Your task to perform on an android device: all mails in gmail Image 0: 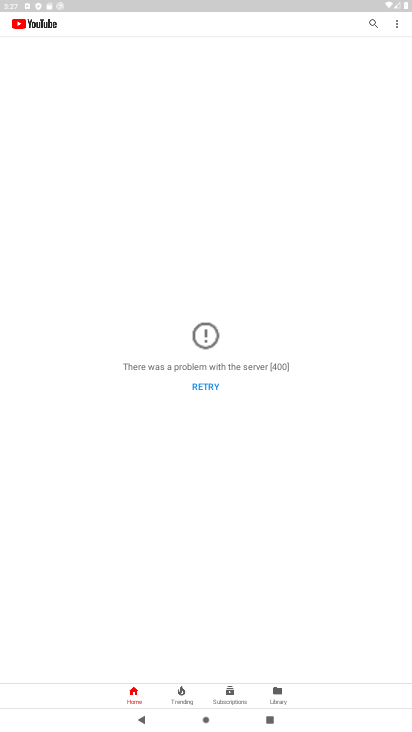
Step 0: press home button
Your task to perform on an android device: all mails in gmail Image 1: 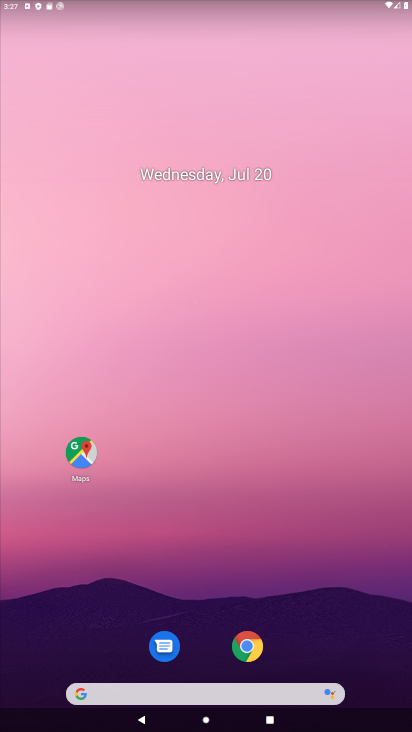
Step 1: drag from (214, 581) to (180, 129)
Your task to perform on an android device: all mails in gmail Image 2: 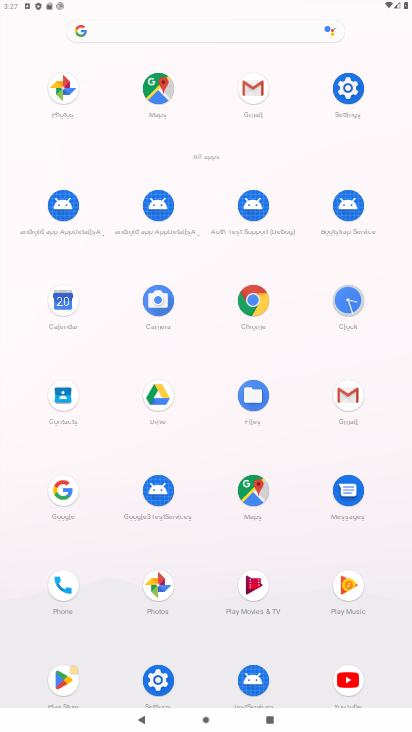
Step 2: click (264, 91)
Your task to perform on an android device: all mails in gmail Image 3: 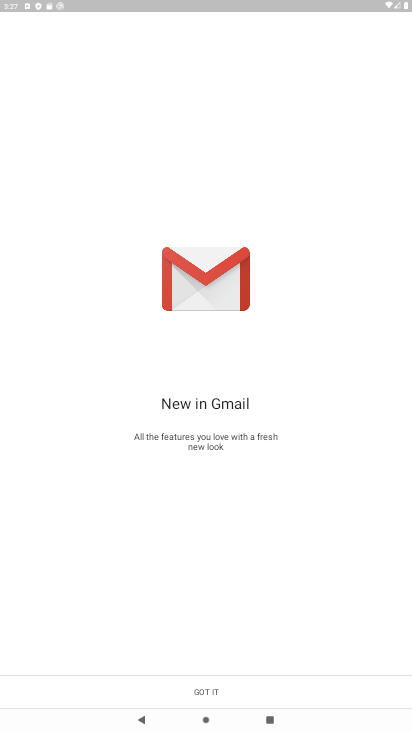
Step 3: click (231, 684)
Your task to perform on an android device: all mails in gmail Image 4: 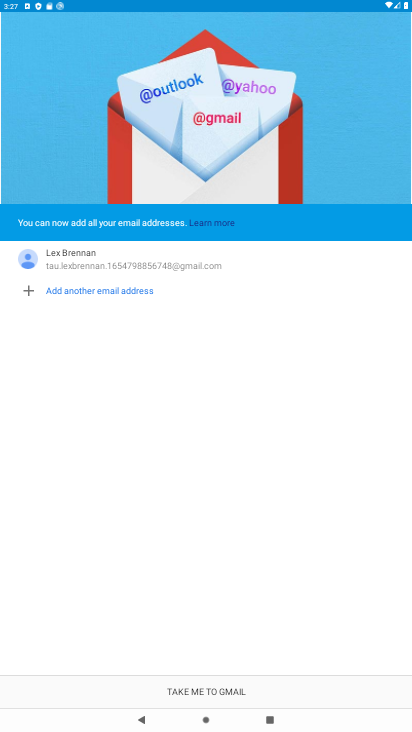
Step 4: click (232, 684)
Your task to perform on an android device: all mails in gmail Image 5: 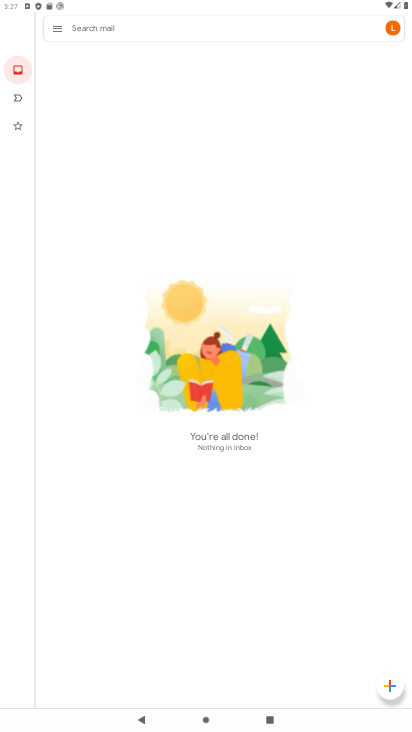
Step 5: click (47, 22)
Your task to perform on an android device: all mails in gmail Image 6: 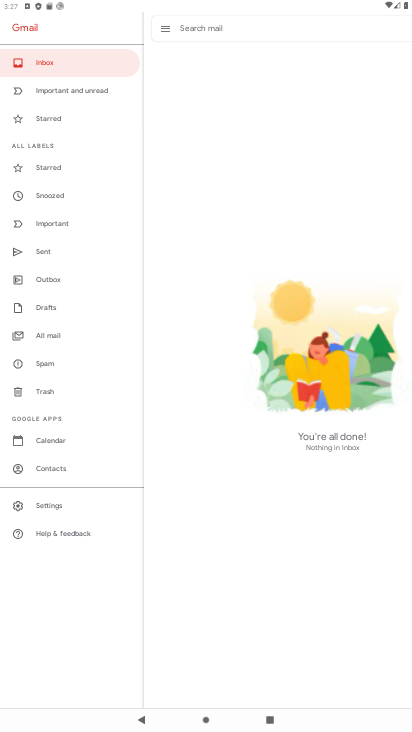
Step 6: click (49, 338)
Your task to perform on an android device: all mails in gmail Image 7: 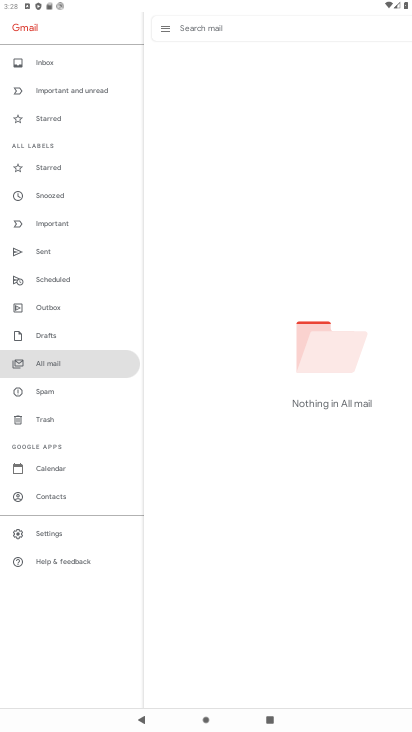
Step 7: task complete